Your task to perform on an android device: Is it going to rain this weekend? Image 0: 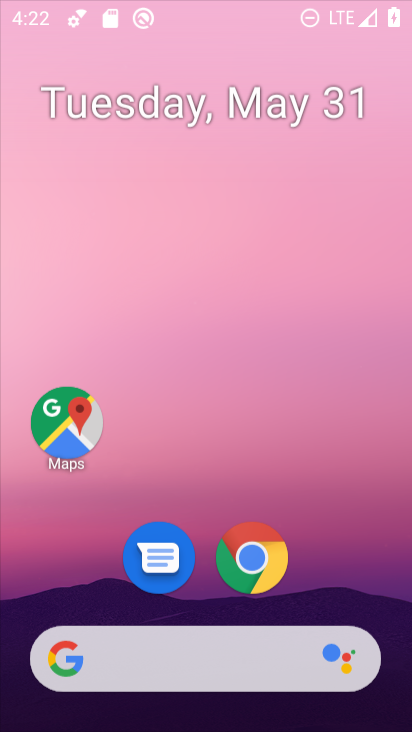
Step 0: drag from (213, 728) to (197, 88)
Your task to perform on an android device: Is it going to rain this weekend? Image 1: 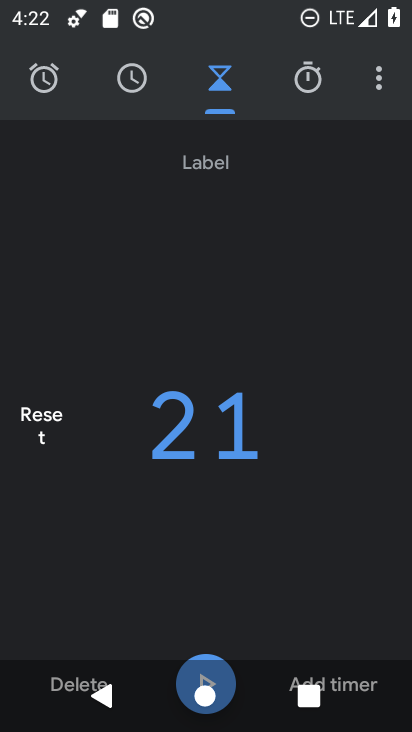
Step 1: press home button
Your task to perform on an android device: Is it going to rain this weekend? Image 2: 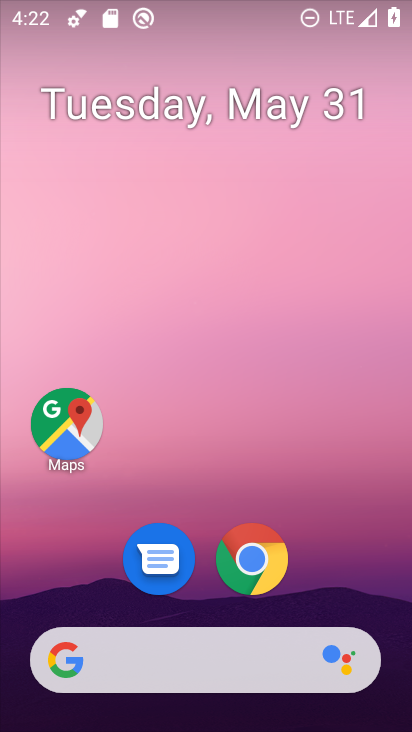
Step 2: drag from (234, 725) to (232, 127)
Your task to perform on an android device: Is it going to rain this weekend? Image 3: 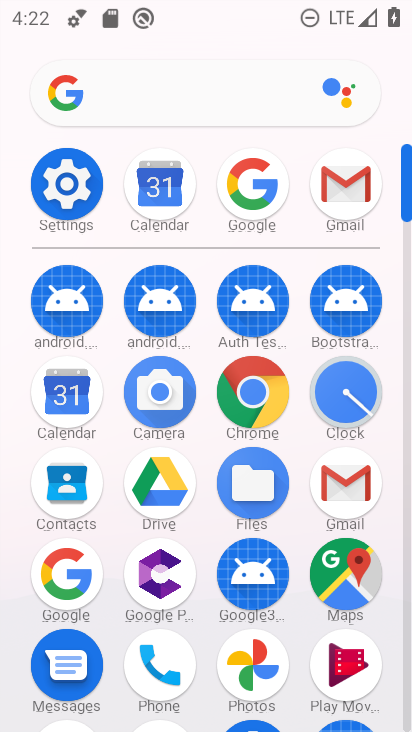
Step 3: click (71, 573)
Your task to perform on an android device: Is it going to rain this weekend? Image 4: 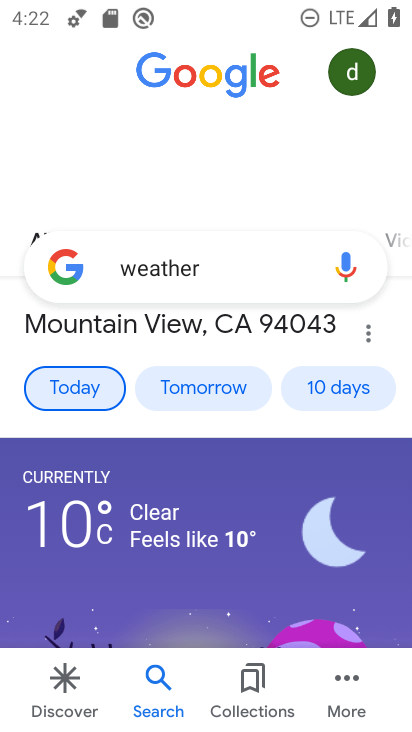
Step 4: click (333, 383)
Your task to perform on an android device: Is it going to rain this weekend? Image 5: 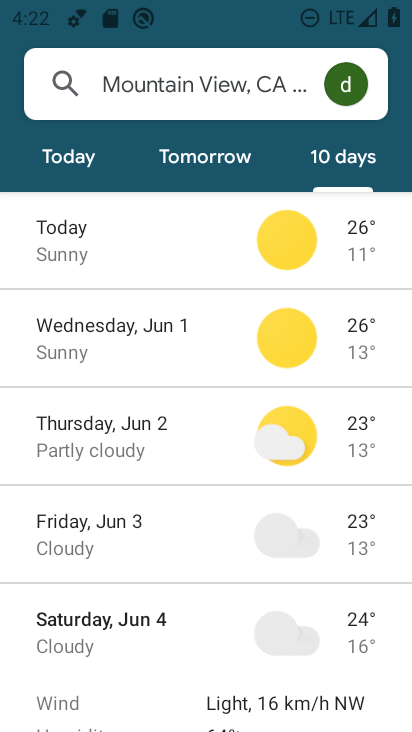
Step 5: task complete